Your task to perform on an android device: Open Google Maps Image 0: 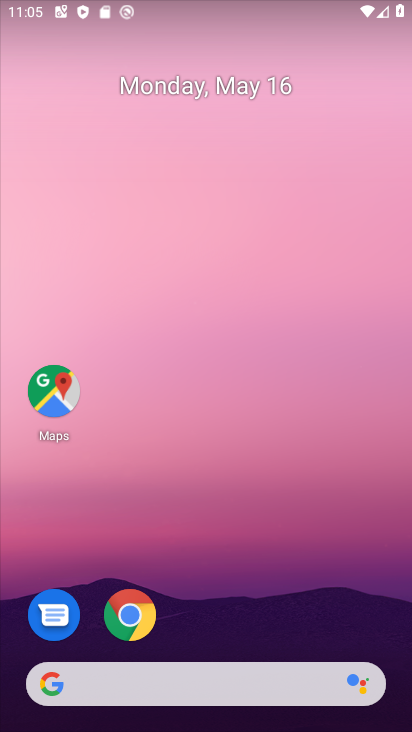
Step 0: drag from (200, 518) to (213, 156)
Your task to perform on an android device: Open Google Maps Image 1: 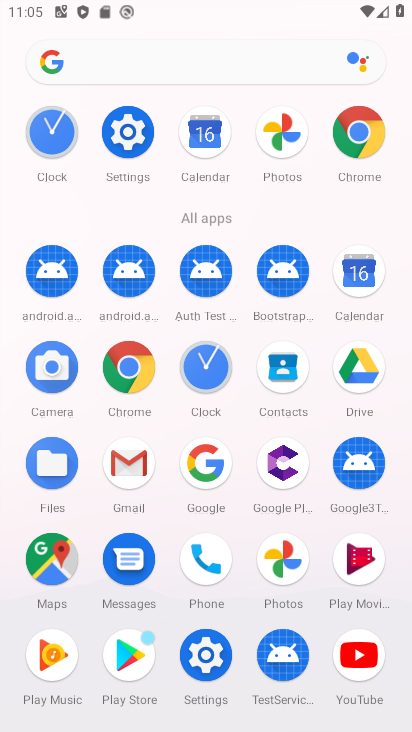
Step 1: click (202, 457)
Your task to perform on an android device: Open Google Maps Image 2: 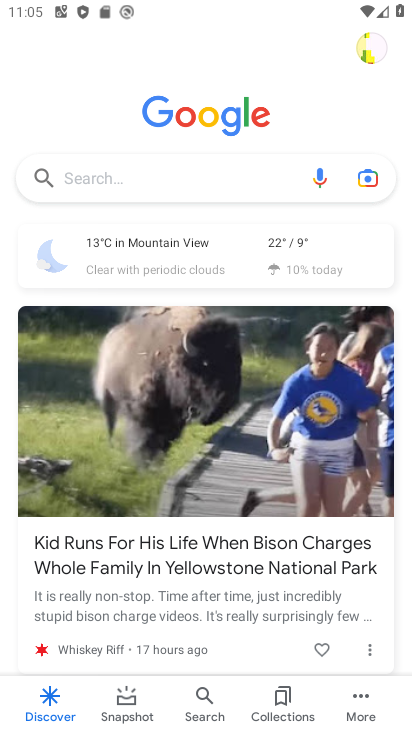
Step 2: task complete